Your task to perform on an android device: change alarm snooze length Image 0: 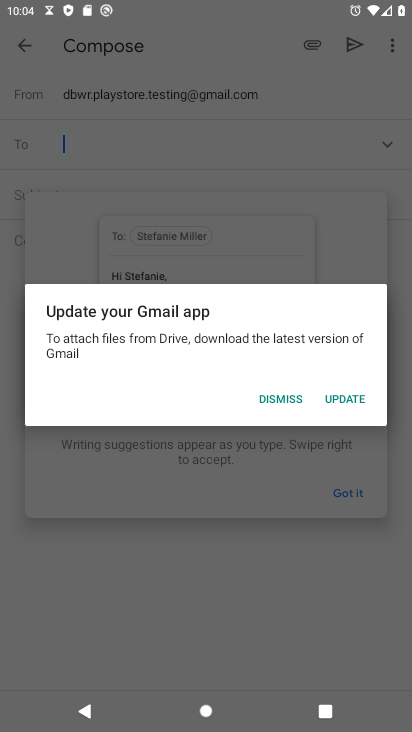
Step 0: press home button
Your task to perform on an android device: change alarm snooze length Image 1: 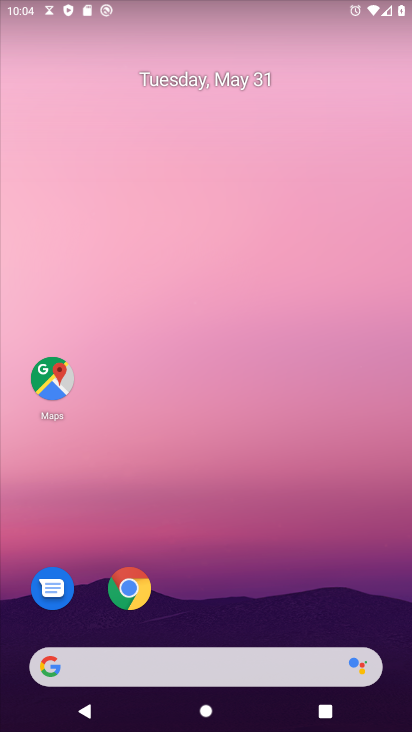
Step 1: drag from (287, 589) to (204, 179)
Your task to perform on an android device: change alarm snooze length Image 2: 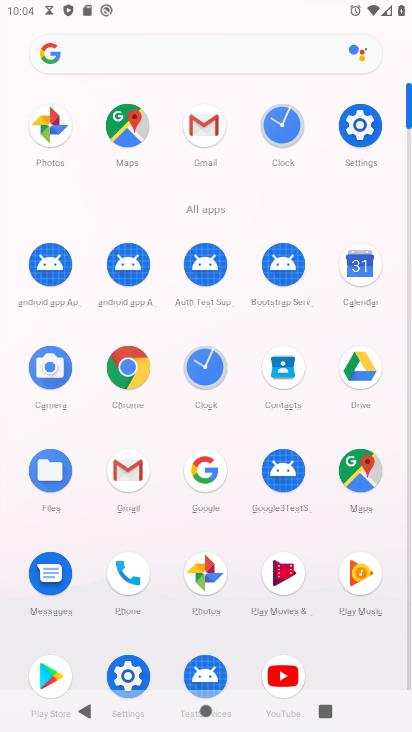
Step 2: click (282, 127)
Your task to perform on an android device: change alarm snooze length Image 3: 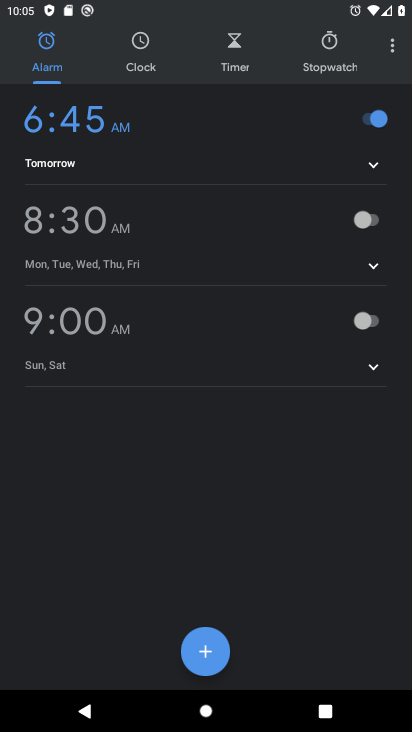
Step 3: click (394, 45)
Your task to perform on an android device: change alarm snooze length Image 4: 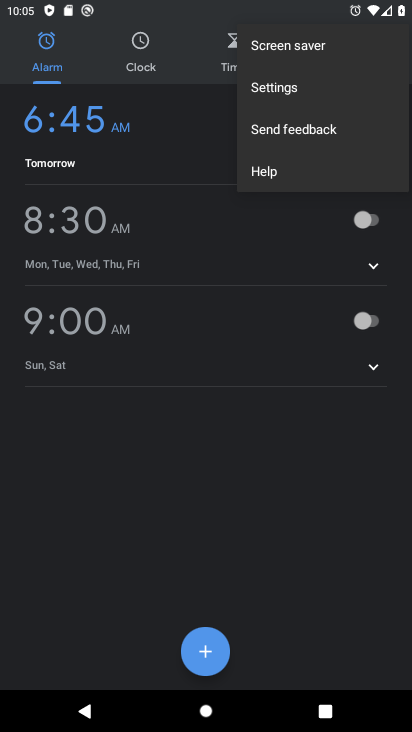
Step 4: click (288, 103)
Your task to perform on an android device: change alarm snooze length Image 5: 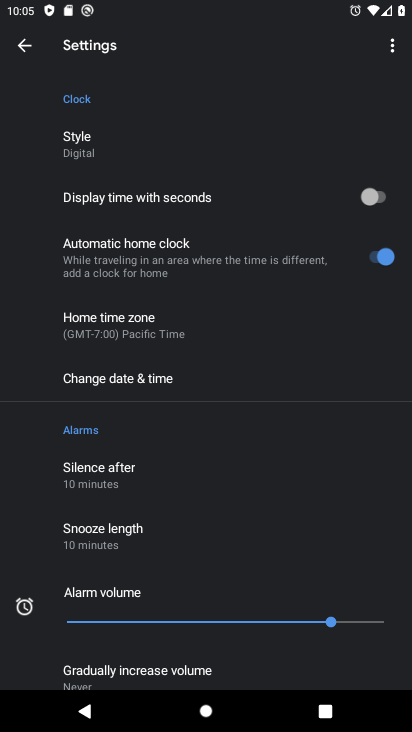
Step 5: click (119, 530)
Your task to perform on an android device: change alarm snooze length Image 6: 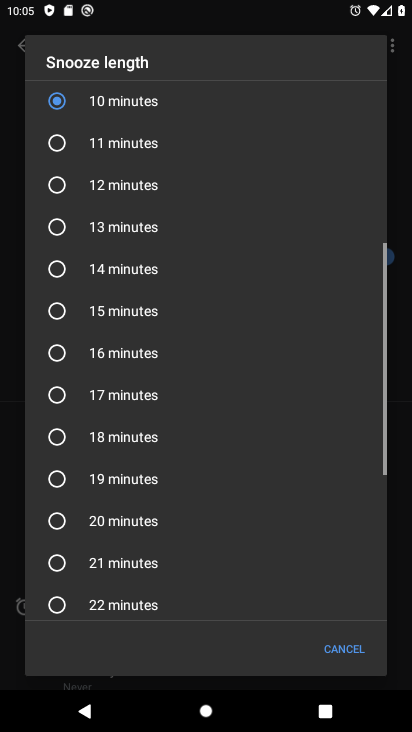
Step 6: drag from (121, 513) to (128, 300)
Your task to perform on an android device: change alarm snooze length Image 7: 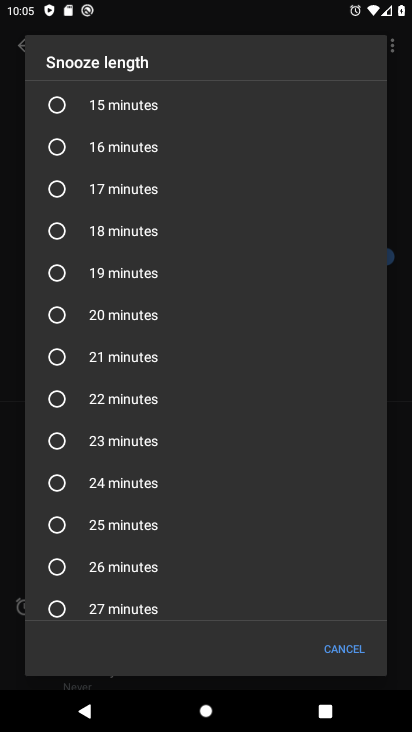
Step 7: click (63, 446)
Your task to perform on an android device: change alarm snooze length Image 8: 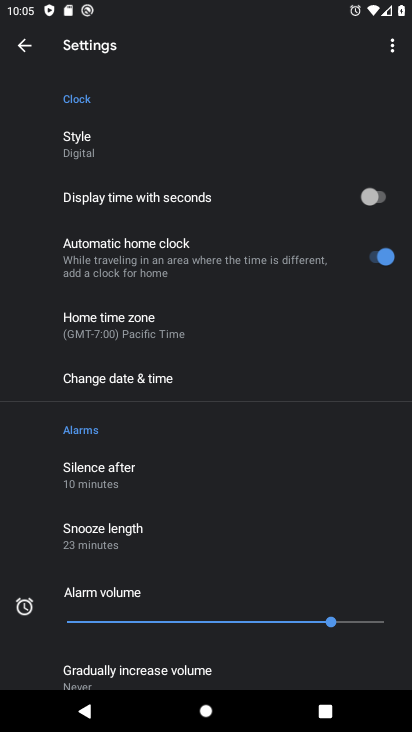
Step 8: task complete